Your task to perform on an android device: Open internet settings Image 0: 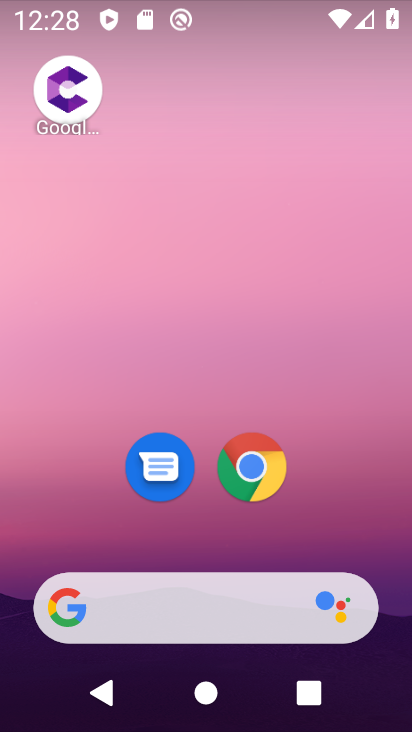
Step 0: drag from (339, 549) to (25, 244)
Your task to perform on an android device: Open internet settings Image 1: 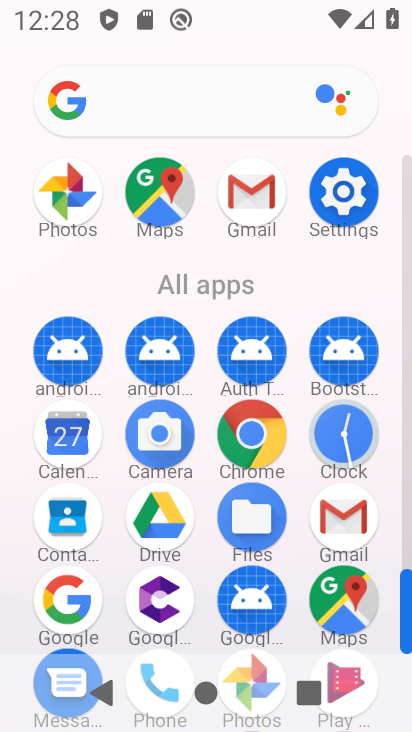
Step 1: click (349, 224)
Your task to perform on an android device: Open internet settings Image 2: 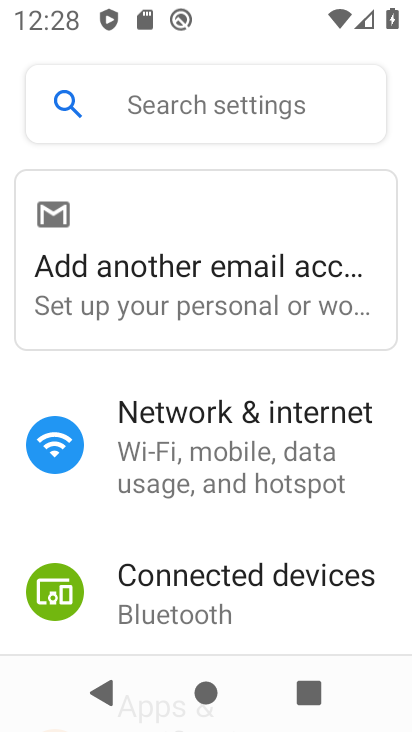
Step 2: click (116, 449)
Your task to perform on an android device: Open internet settings Image 3: 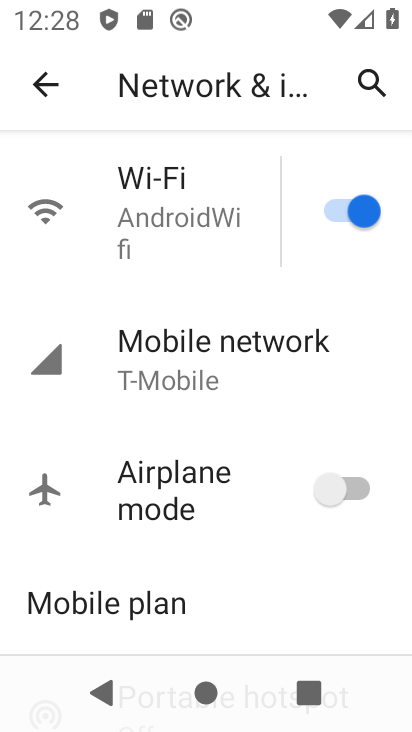
Step 3: task complete